Your task to perform on an android device: open a bookmark in the chrome app Image 0: 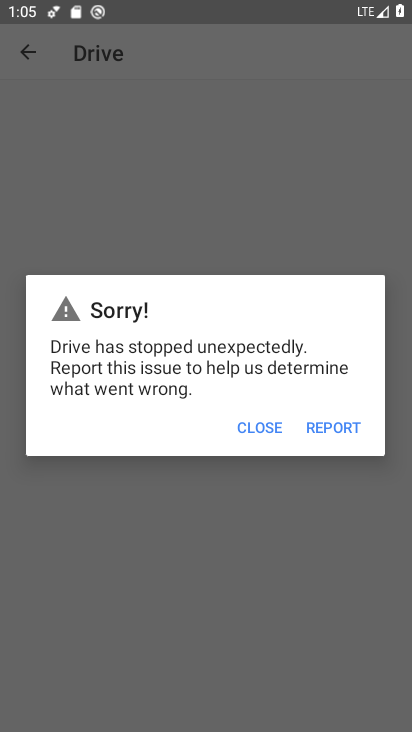
Step 0: press home button
Your task to perform on an android device: open a bookmark in the chrome app Image 1: 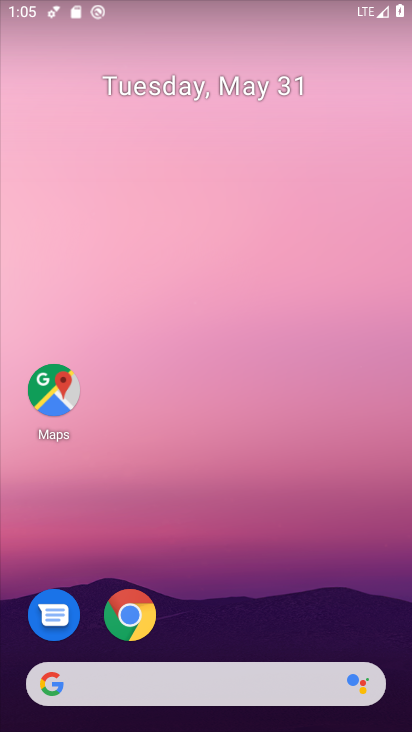
Step 1: click (144, 617)
Your task to perform on an android device: open a bookmark in the chrome app Image 2: 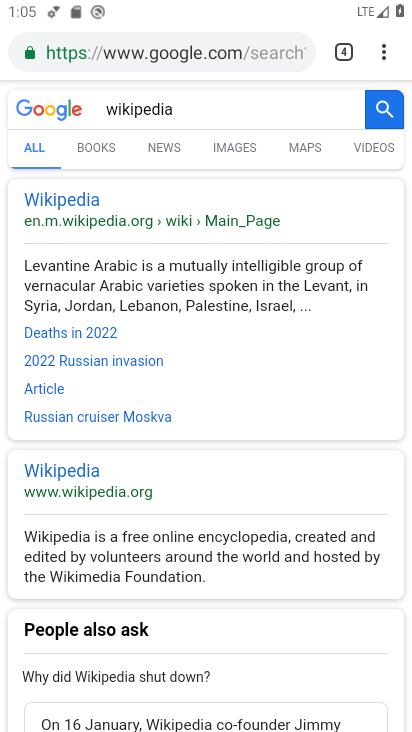
Step 2: click (390, 65)
Your task to perform on an android device: open a bookmark in the chrome app Image 3: 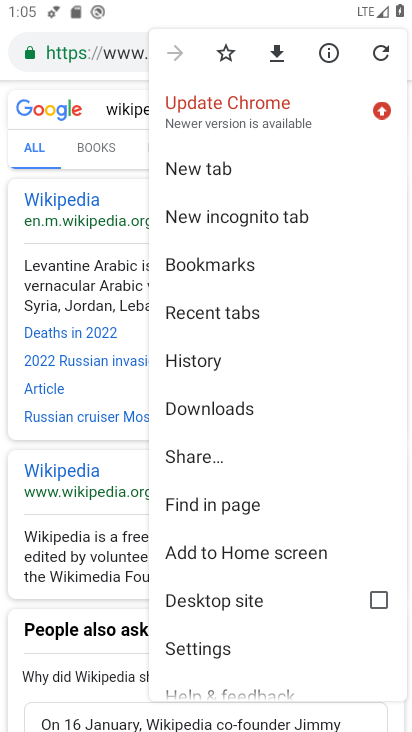
Step 3: click (226, 272)
Your task to perform on an android device: open a bookmark in the chrome app Image 4: 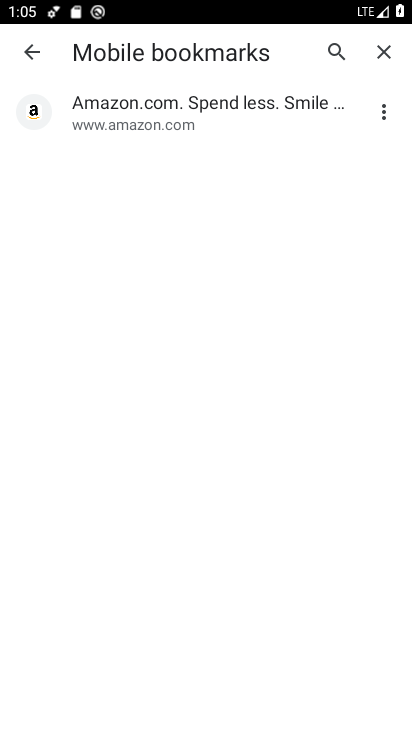
Step 4: click (233, 127)
Your task to perform on an android device: open a bookmark in the chrome app Image 5: 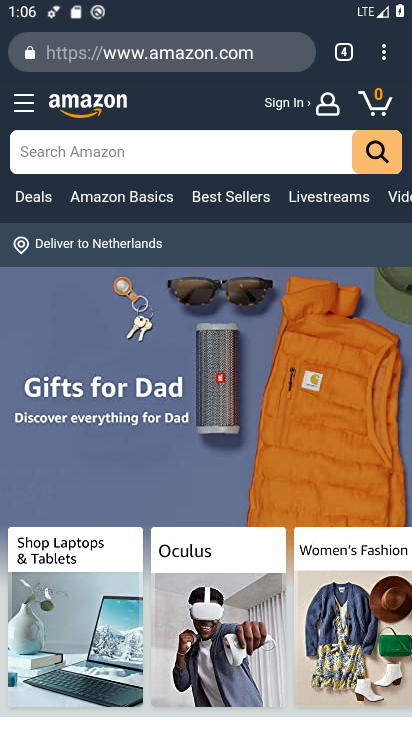
Step 5: task complete